Your task to perform on an android device: Do I have any events tomorrow? Image 0: 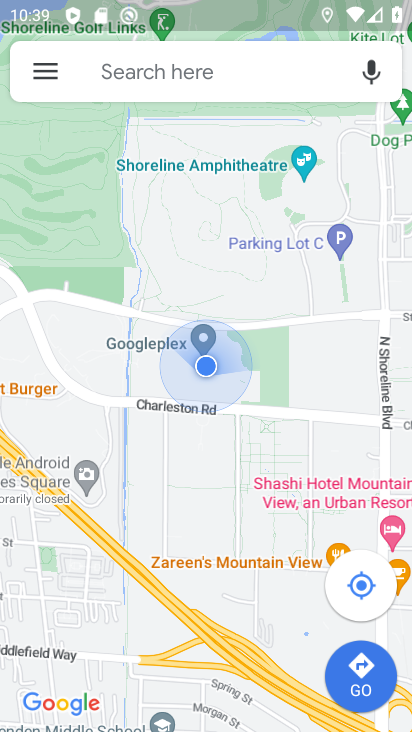
Step 0: press home button
Your task to perform on an android device: Do I have any events tomorrow? Image 1: 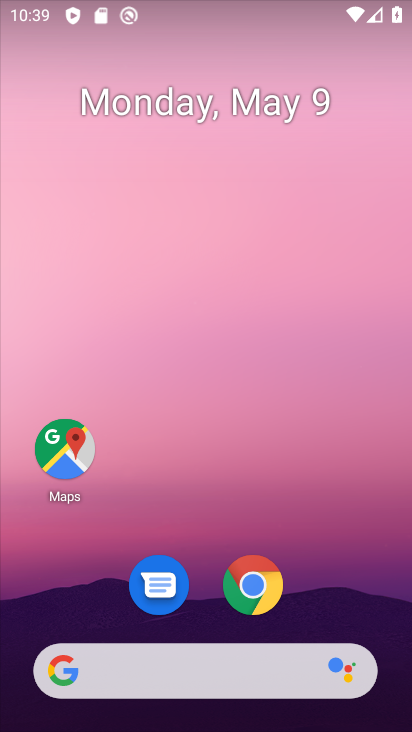
Step 1: drag from (181, 507) to (189, 77)
Your task to perform on an android device: Do I have any events tomorrow? Image 2: 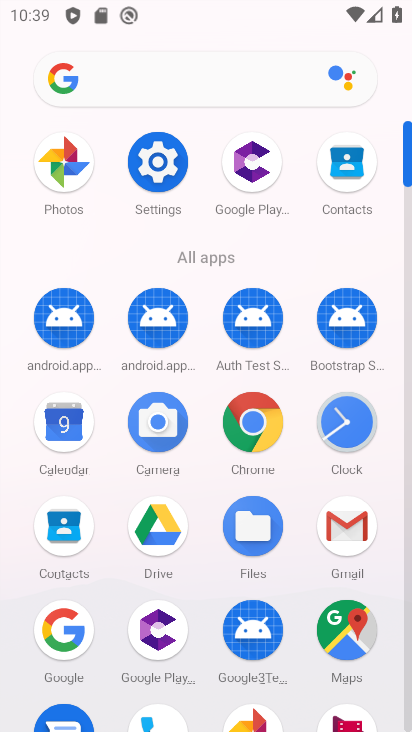
Step 2: click (64, 414)
Your task to perform on an android device: Do I have any events tomorrow? Image 3: 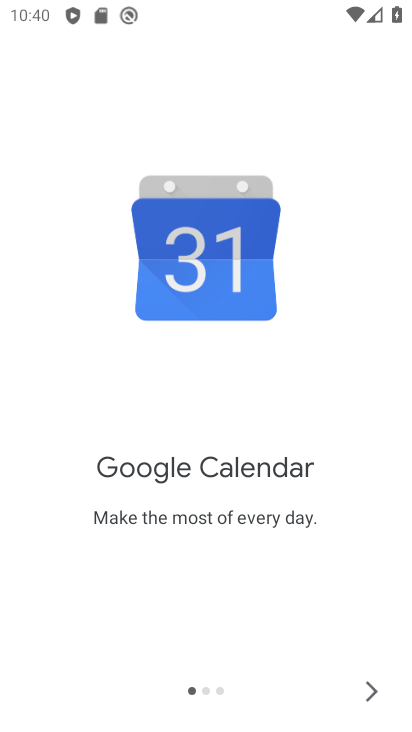
Step 3: click (371, 686)
Your task to perform on an android device: Do I have any events tomorrow? Image 4: 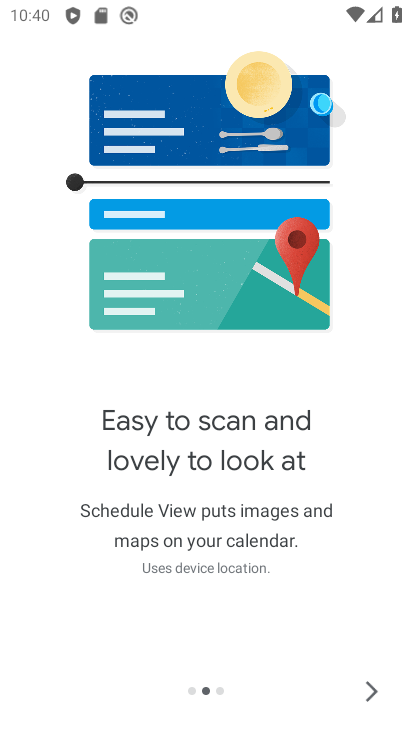
Step 4: click (371, 686)
Your task to perform on an android device: Do I have any events tomorrow? Image 5: 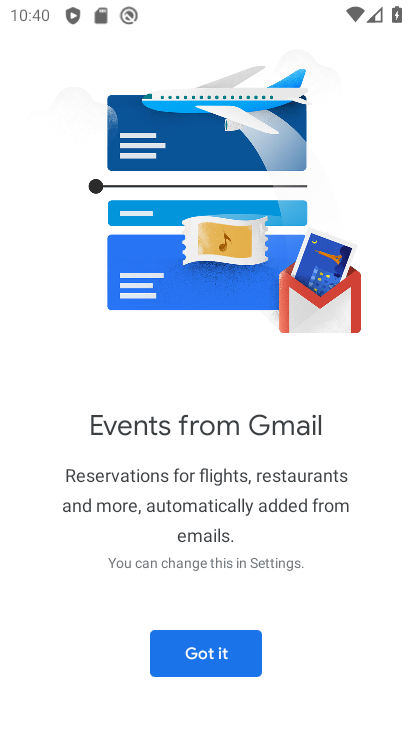
Step 5: click (245, 649)
Your task to perform on an android device: Do I have any events tomorrow? Image 6: 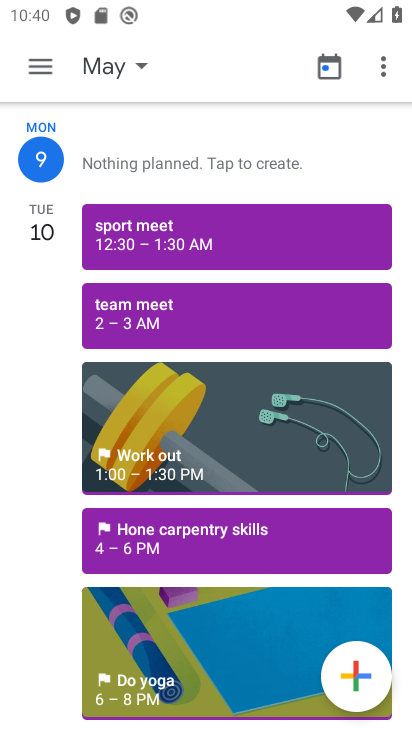
Step 6: task complete